Your task to perform on an android device: Search for Mexican restaurants on Maps Image 0: 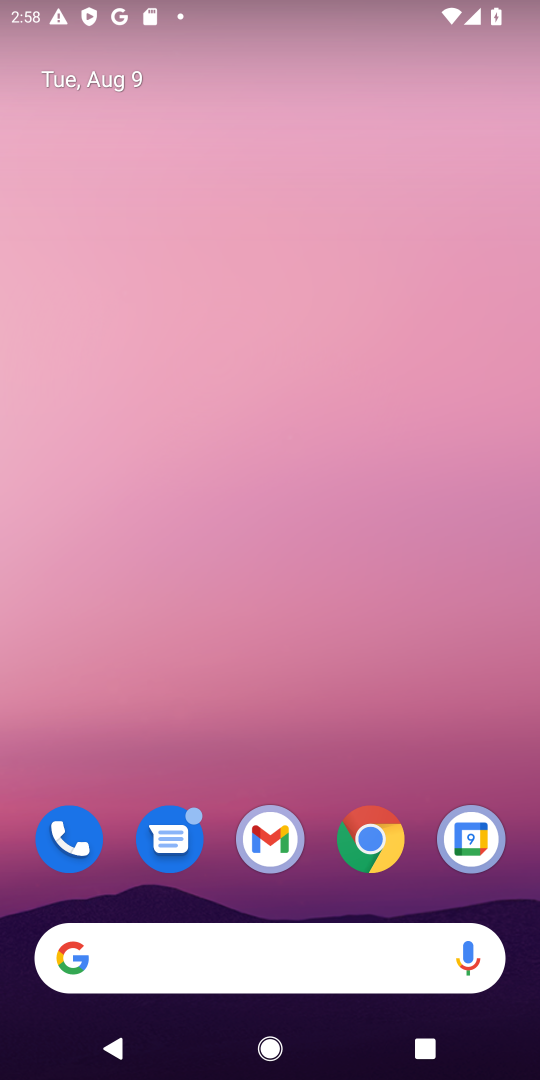
Step 0: press home button
Your task to perform on an android device: Search for Mexican restaurants on Maps Image 1: 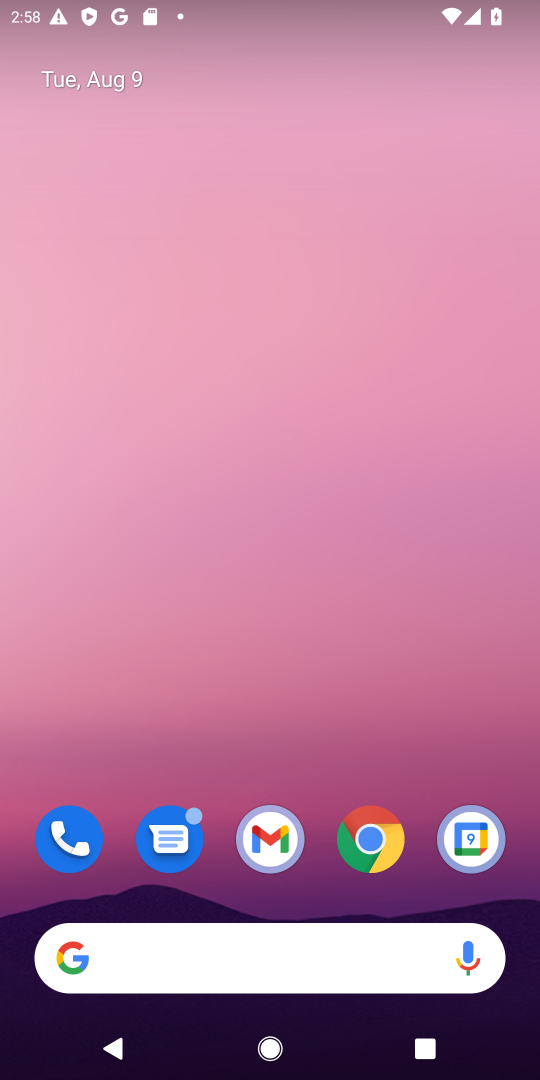
Step 1: drag from (271, 527) to (297, 143)
Your task to perform on an android device: Search for Mexican restaurants on Maps Image 2: 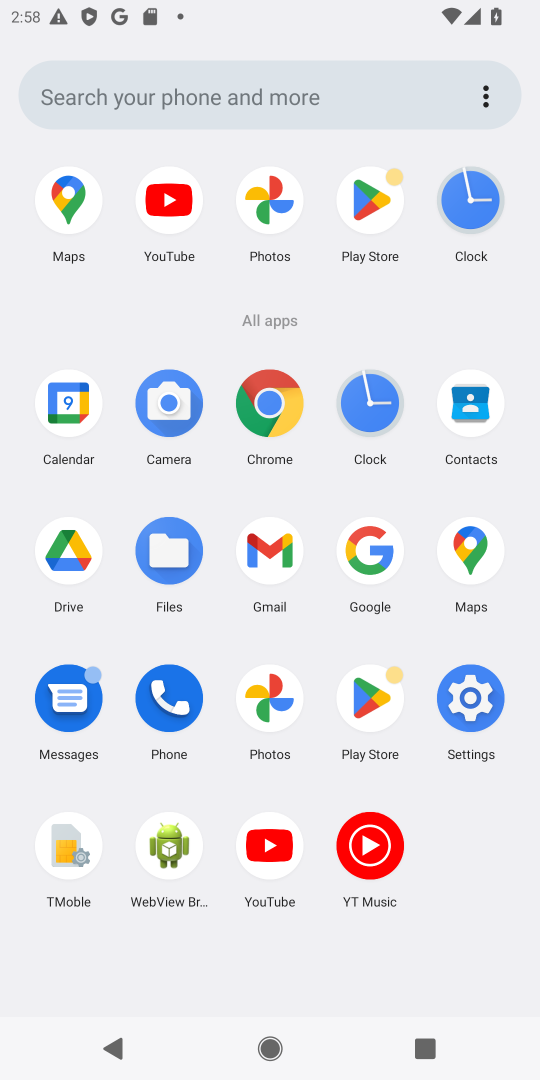
Step 2: click (465, 548)
Your task to perform on an android device: Search for Mexican restaurants on Maps Image 3: 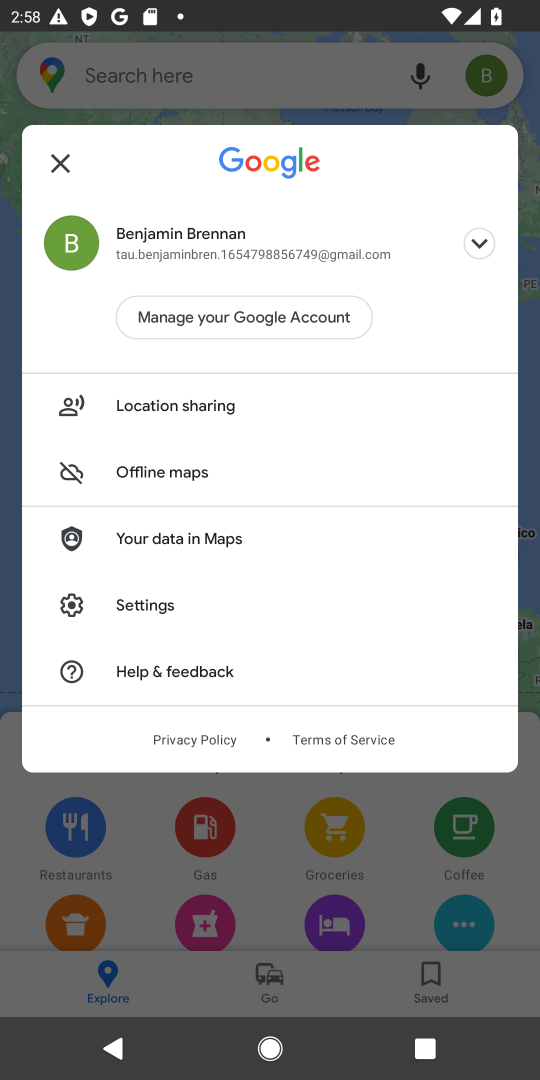
Step 3: click (52, 162)
Your task to perform on an android device: Search for Mexican restaurants on Maps Image 4: 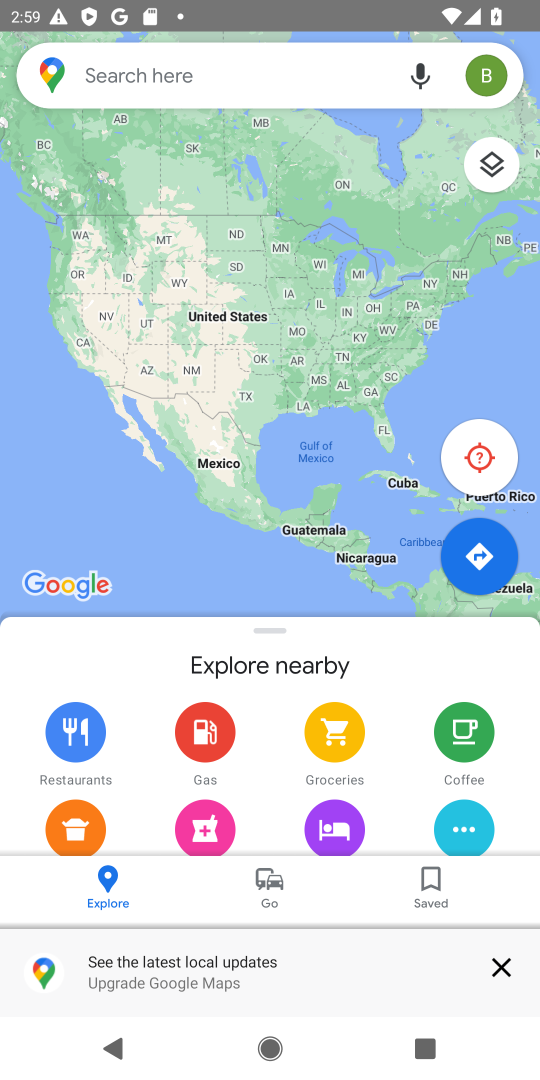
Step 4: click (262, 75)
Your task to perform on an android device: Search for Mexican restaurants on Maps Image 5: 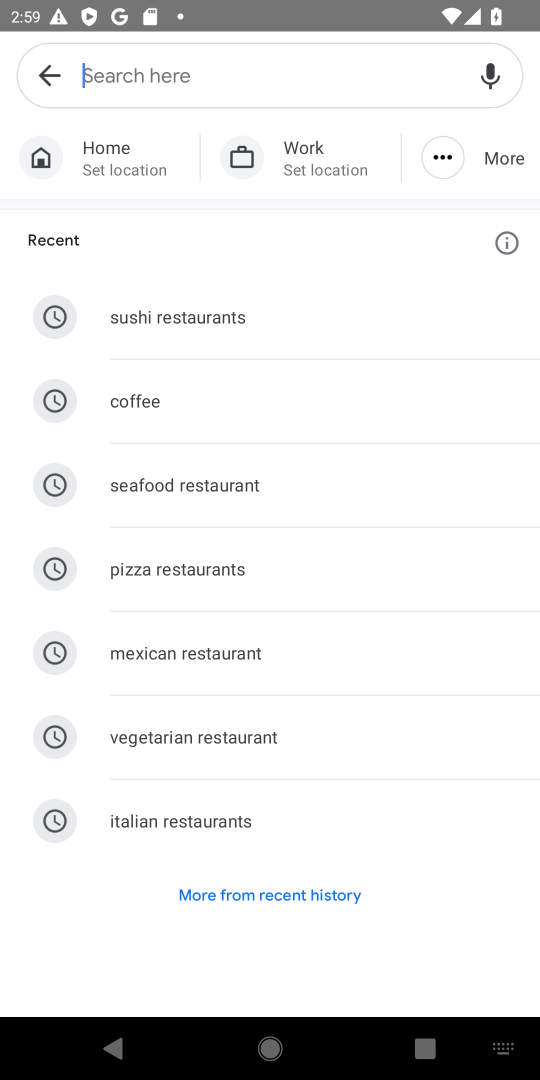
Step 5: click (193, 649)
Your task to perform on an android device: Search for Mexican restaurants on Maps Image 6: 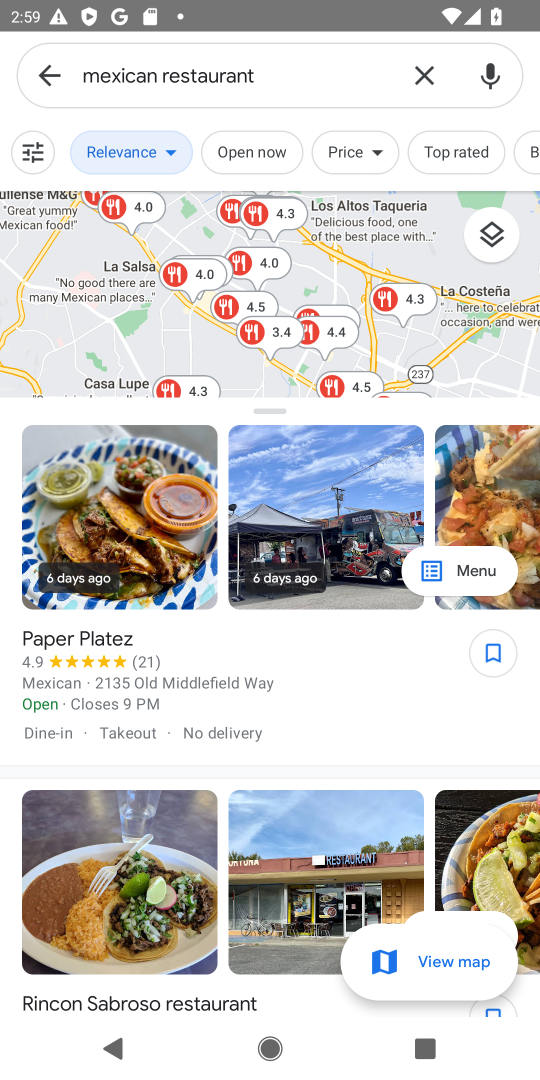
Step 6: task complete